Your task to perform on an android device: Go to Wikipedia Image 0: 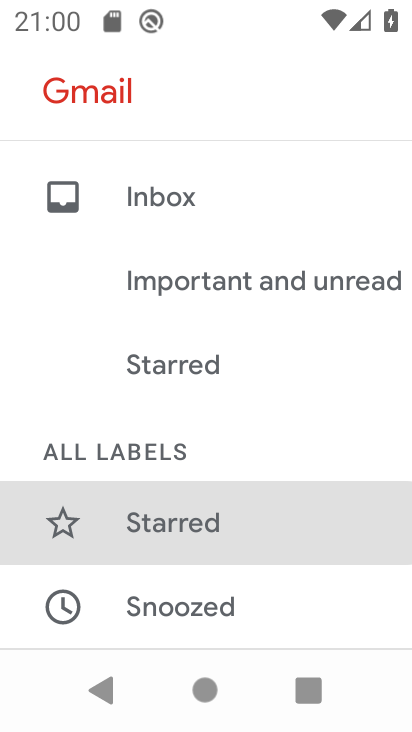
Step 0: press home button
Your task to perform on an android device: Go to Wikipedia Image 1: 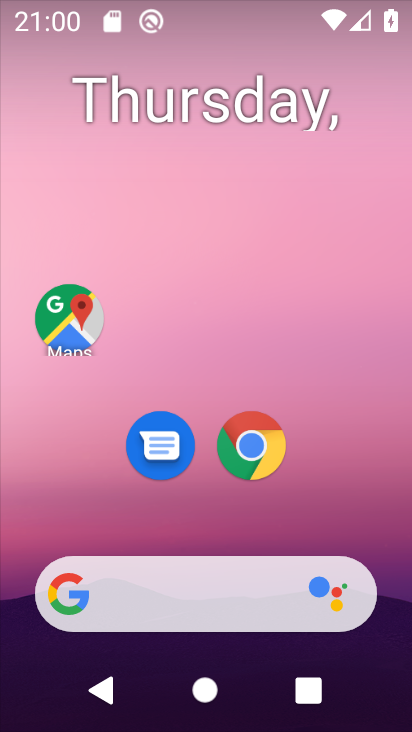
Step 1: click (266, 458)
Your task to perform on an android device: Go to Wikipedia Image 2: 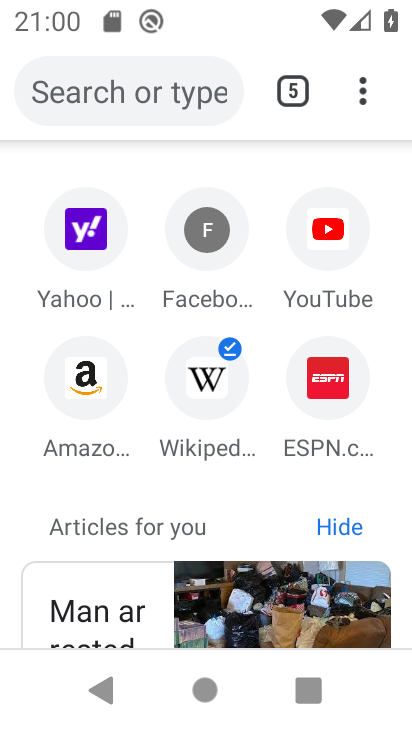
Step 2: click (228, 365)
Your task to perform on an android device: Go to Wikipedia Image 3: 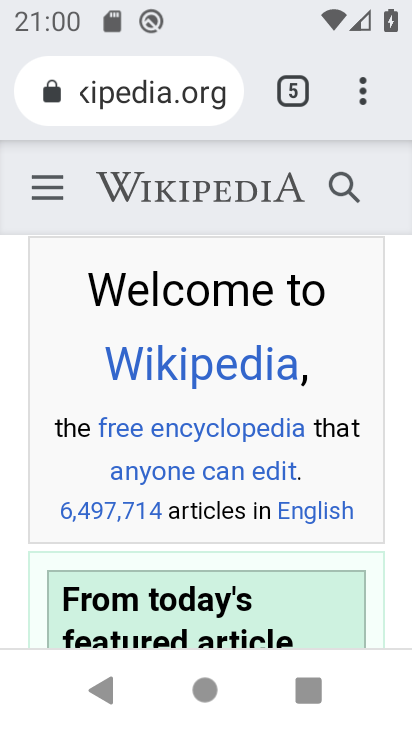
Step 3: task complete